Your task to perform on an android device: open app "Gboard" Image 0: 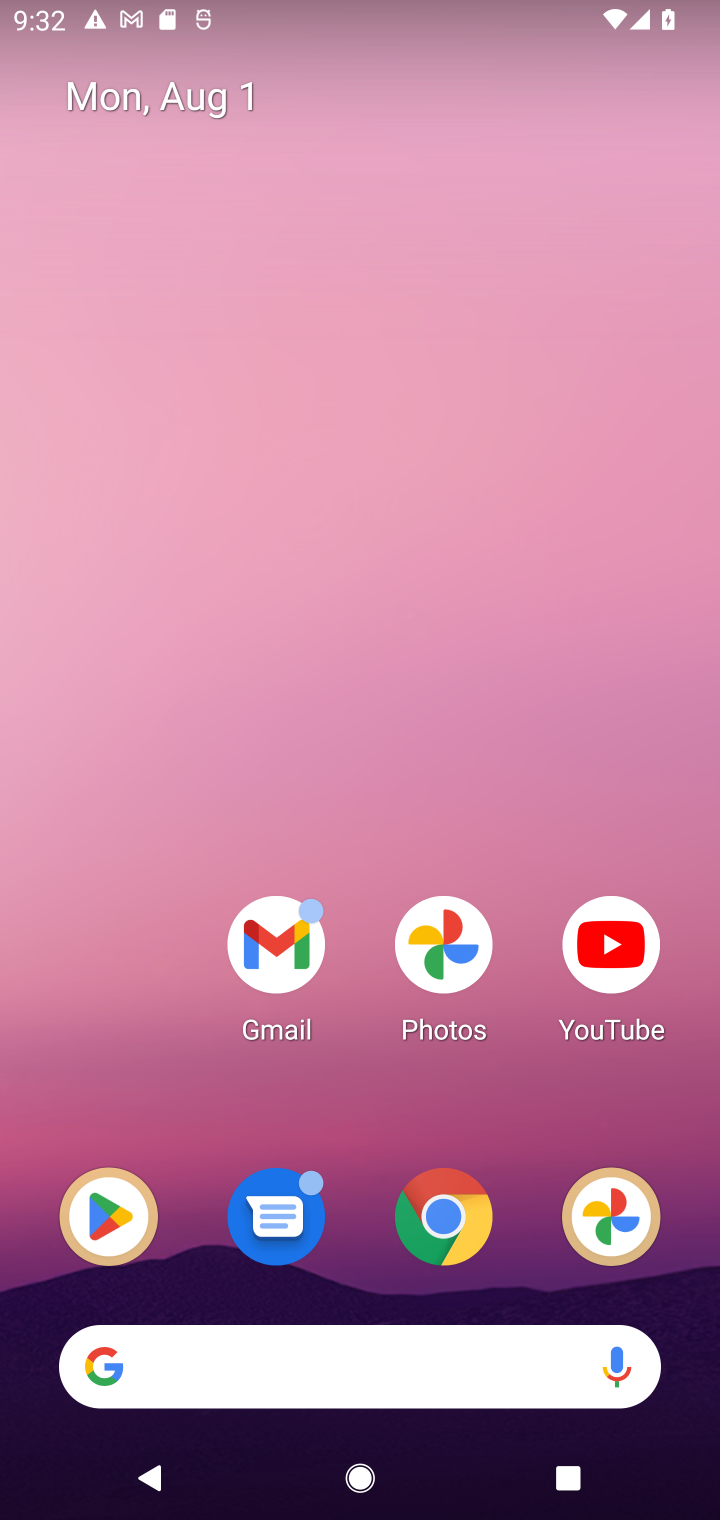
Step 0: click (117, 1200)
Your task to perform on an android device: open app "Gboard" Image 1: 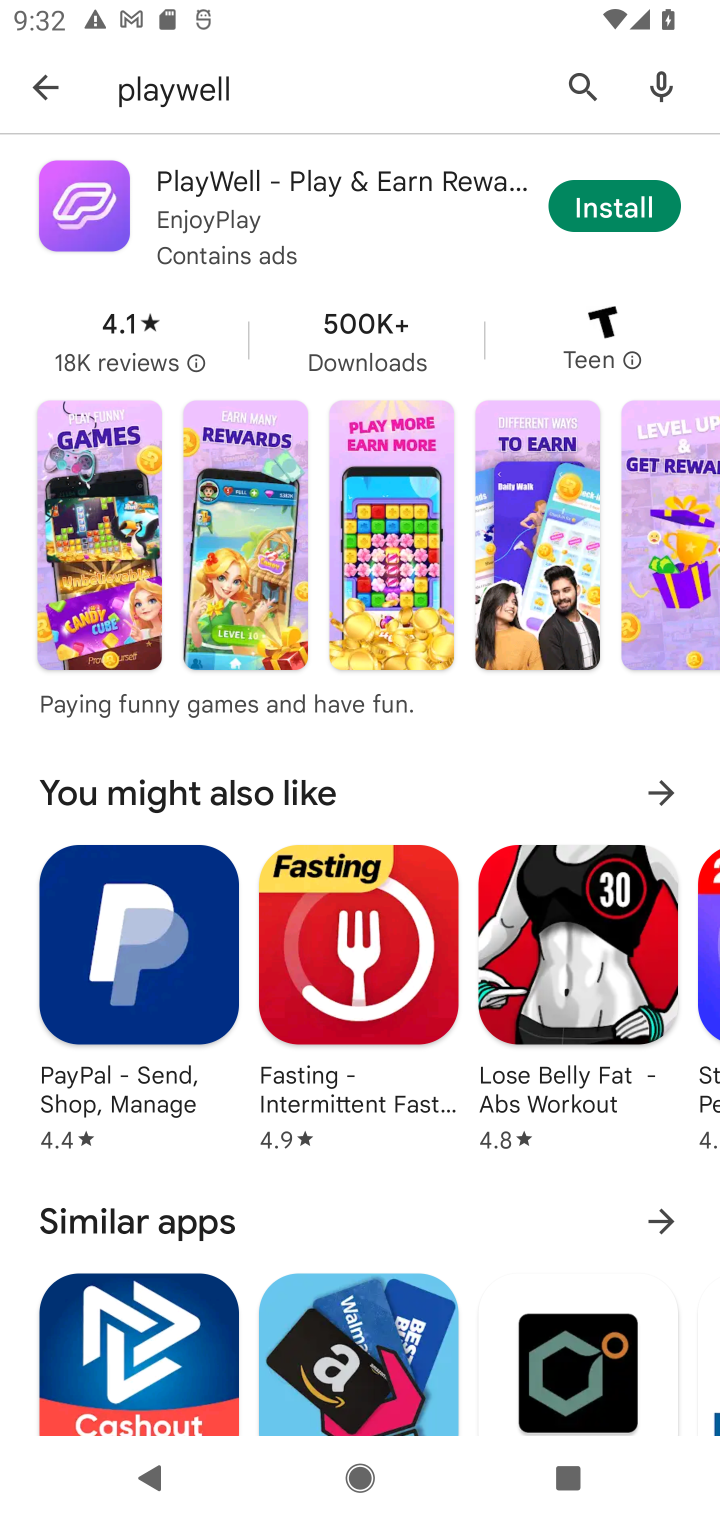
Step 1: click (582, 82)
Your task to perform on an android device: open app "Gboard" Image 2: 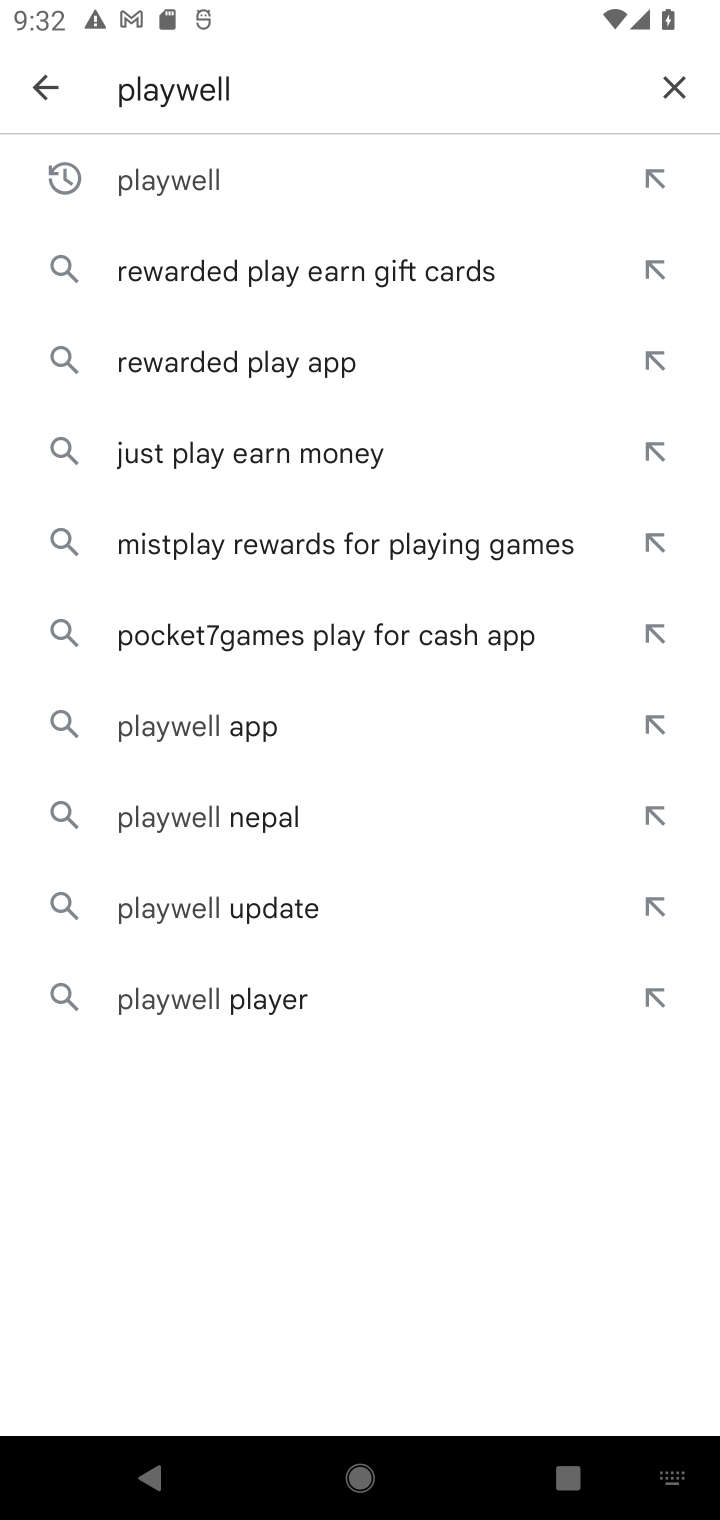
Step 2: click (652, 85)
Your task to perform on an android device: open app "Gboard" Image 3: 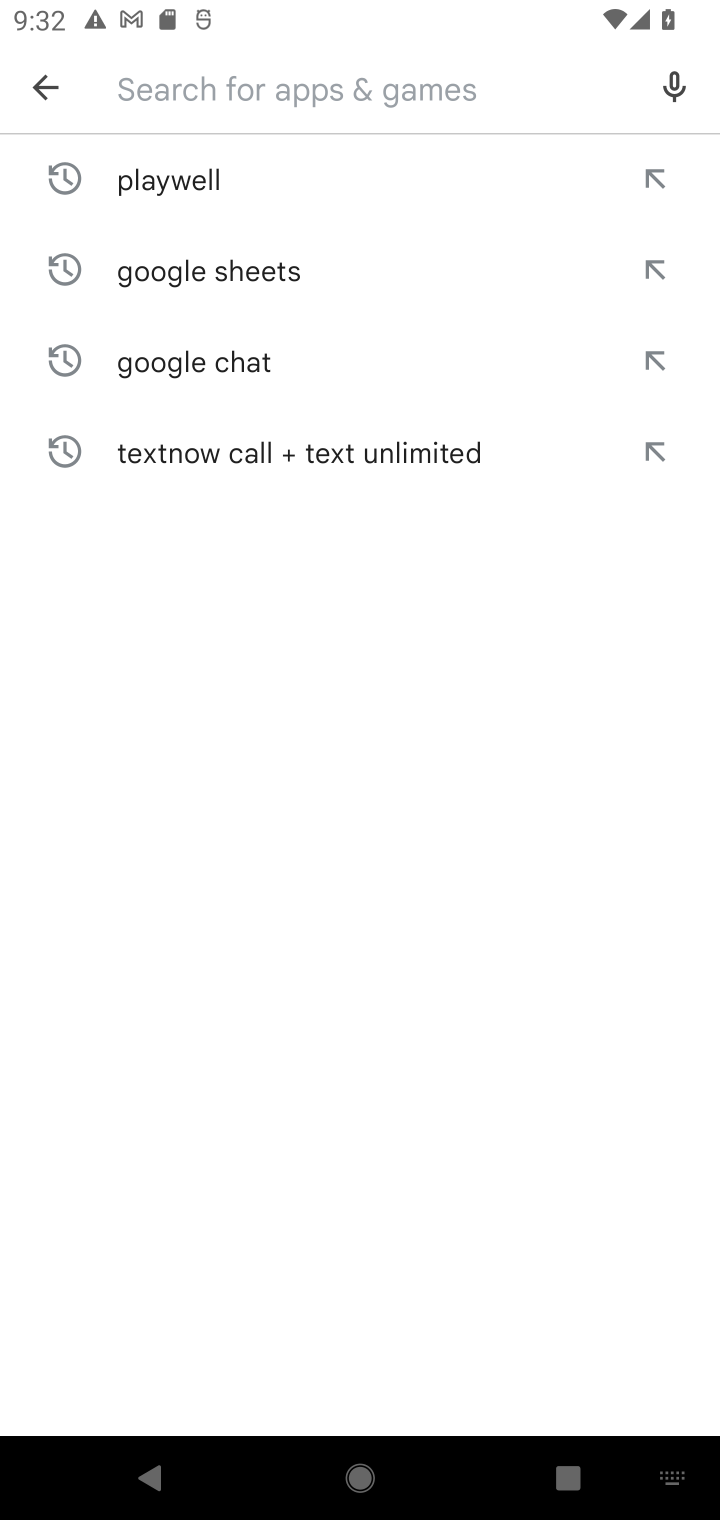
Step 3: type "Gboard"
Your task to perform on an android device: open app "Gboard" Image 4: 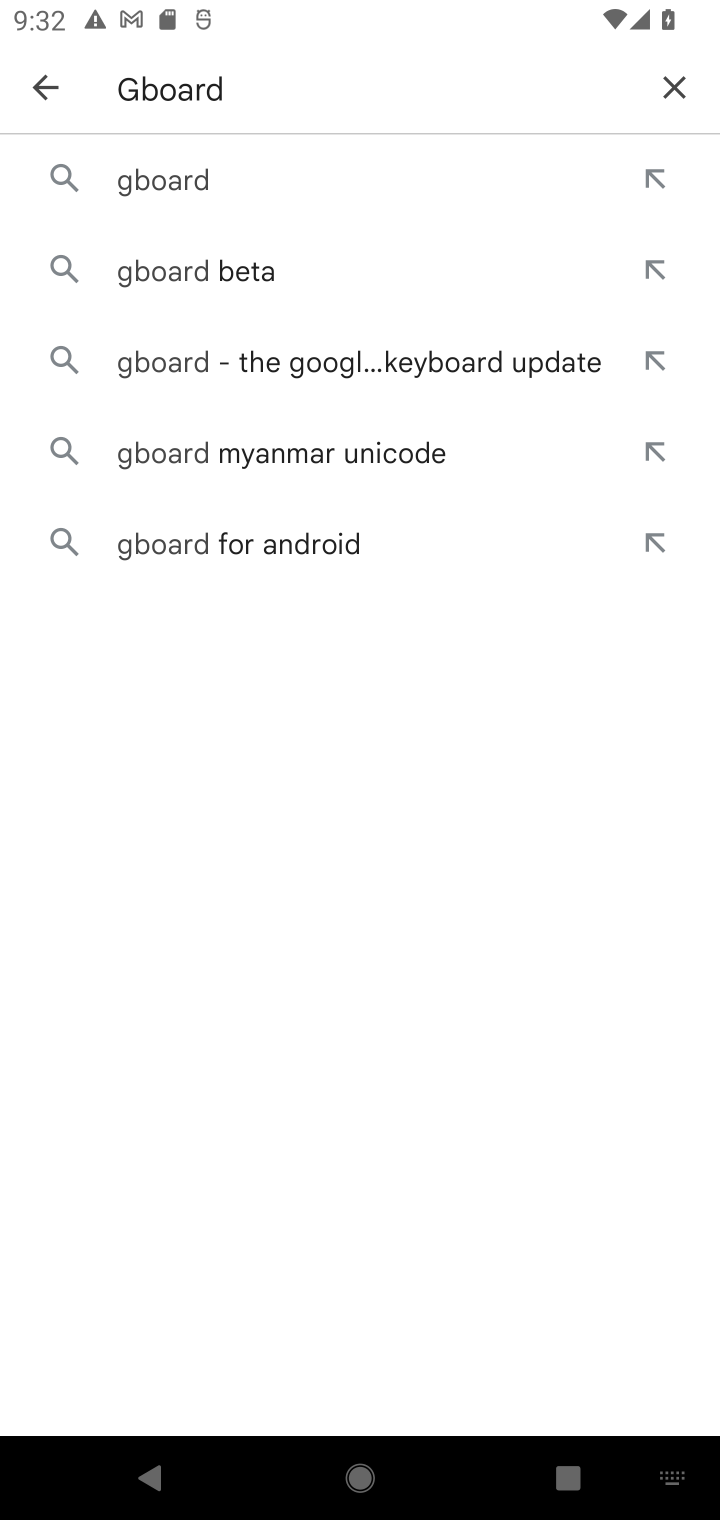
Step 4: click (141, 188)
Your task to perform on an android device: open app "Gboard" Image 5: 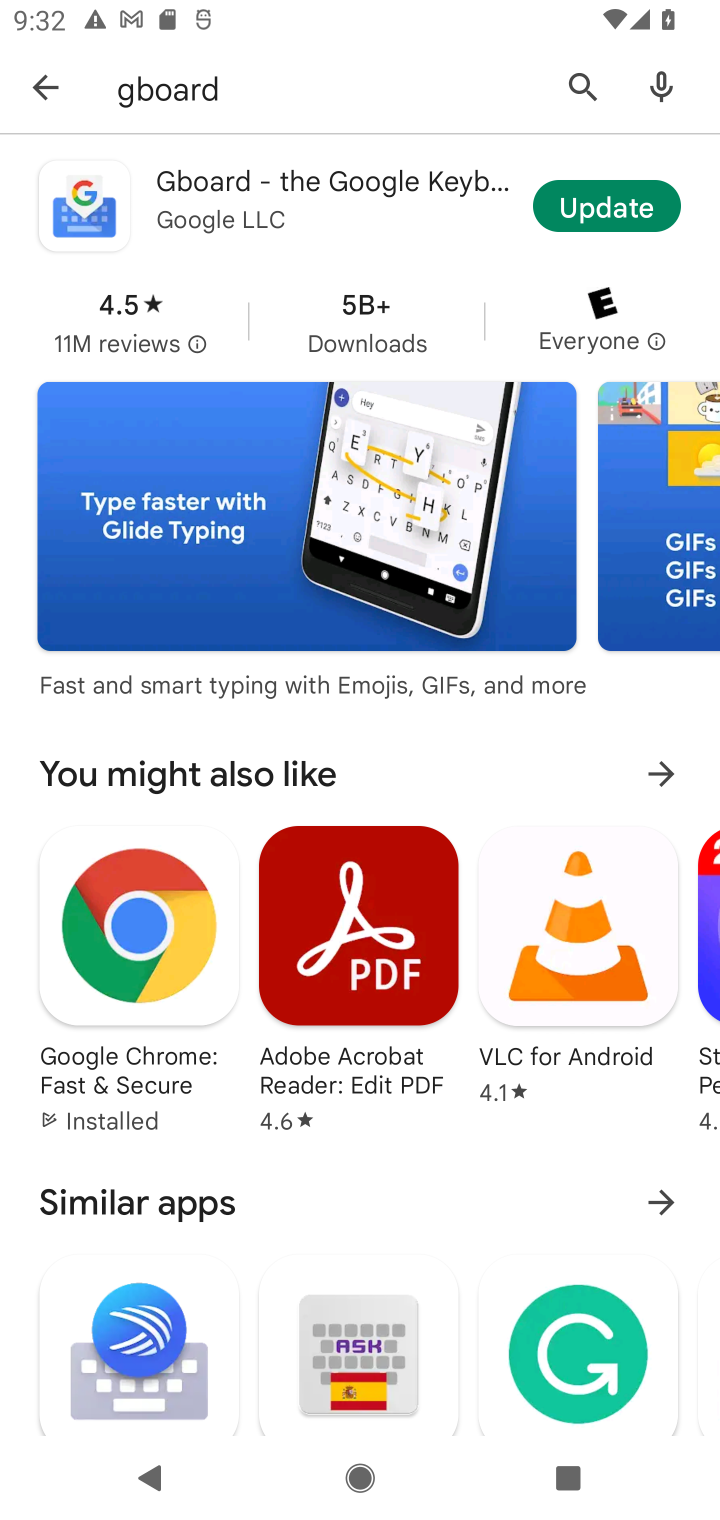
Step 5: click (192, 200)
Your task to perform on an android device: open app "Gboard" Image 6: 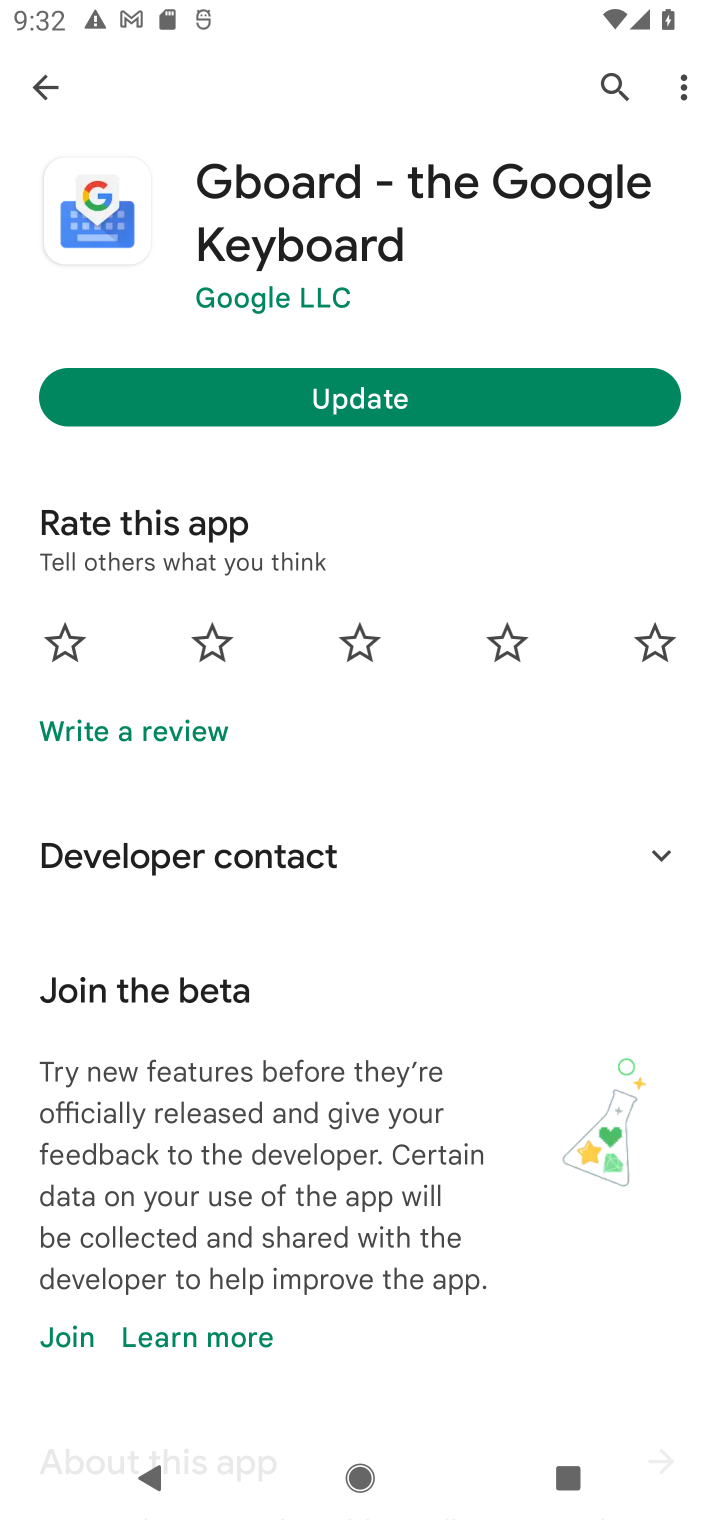
Step 6: click (251, 182)
Your task to perform on an android device: open app "Gboard" Image 7: 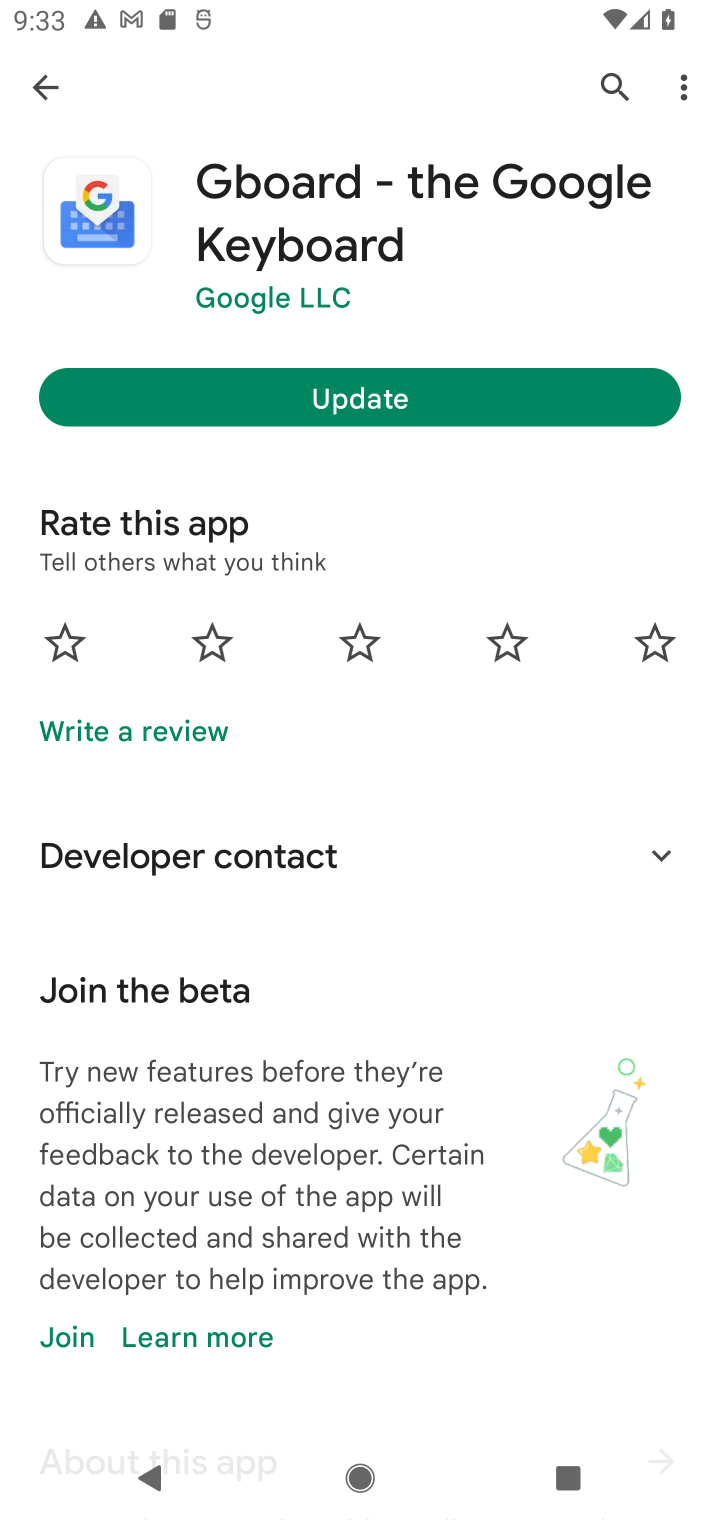
Step 7: task complete